Your task to perform on an android device: Open eBay Image 0: 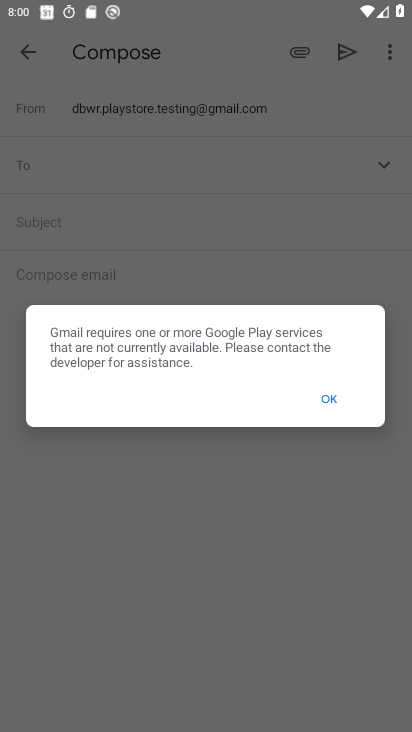
Step 0: press home button
Your task to perform on an android device: Open eBay Image 1: 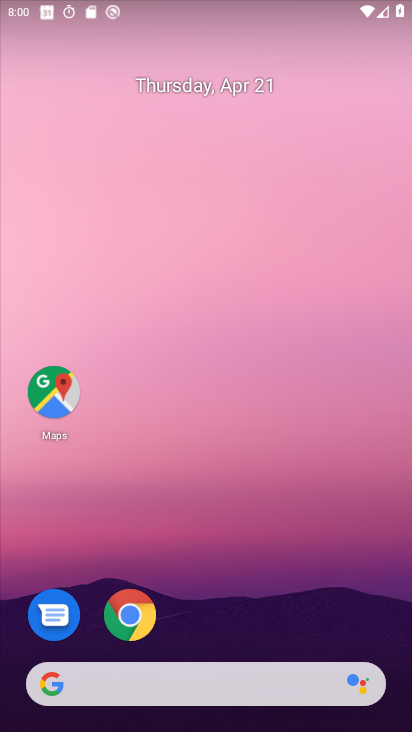
Step 1: drag from (180, 676) to (302, 200)
Your task to perform on an android device: Open eBay Image 2: 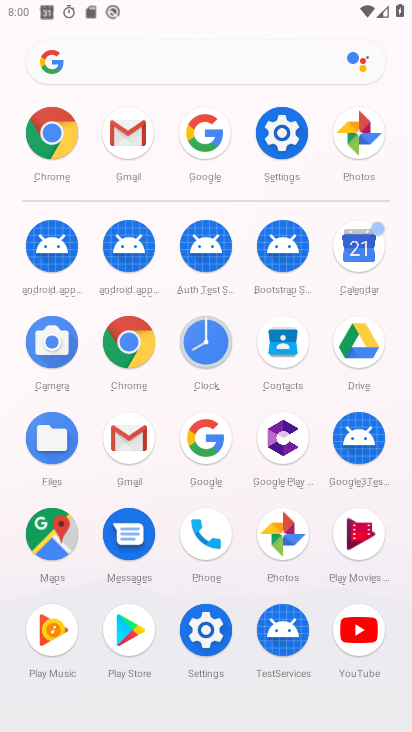
Step 2: click (49, 150)
Your task to perform on an android device: Open eBay Image 3: 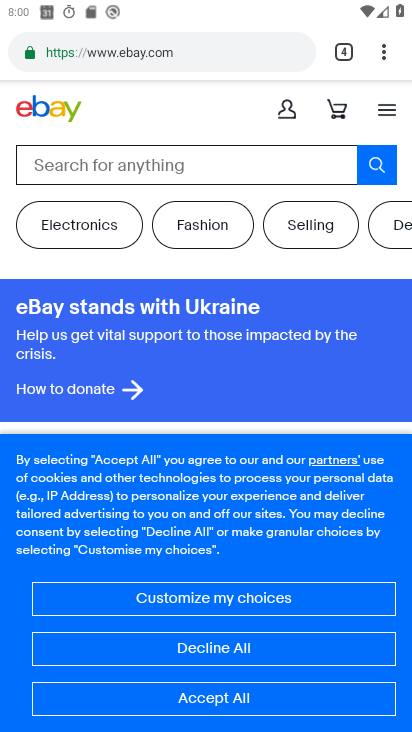
Step 3: click (380, 62)
Your task to perform on an android device: Open eBay Image 4: 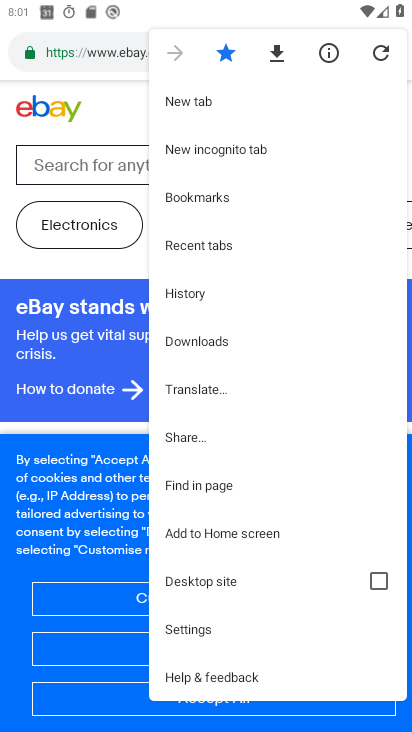
Step 4: click (45, 257)
Your task to perform on an android device: Open eBay Image 5: 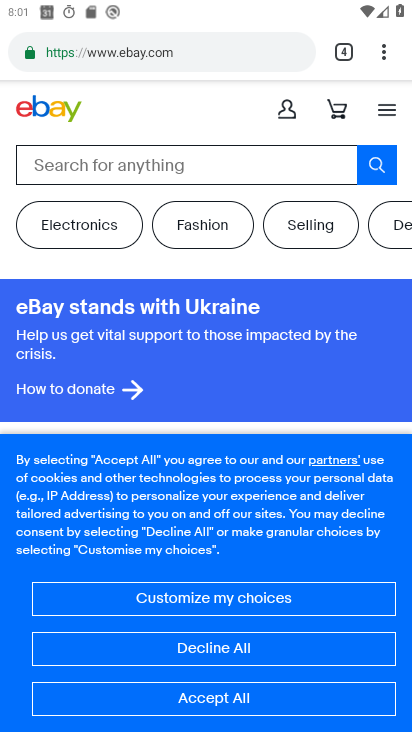
Step 5: task complete